Your task to perform on an android device: Search for the best rated 3d printer on Amazon. Image 0: 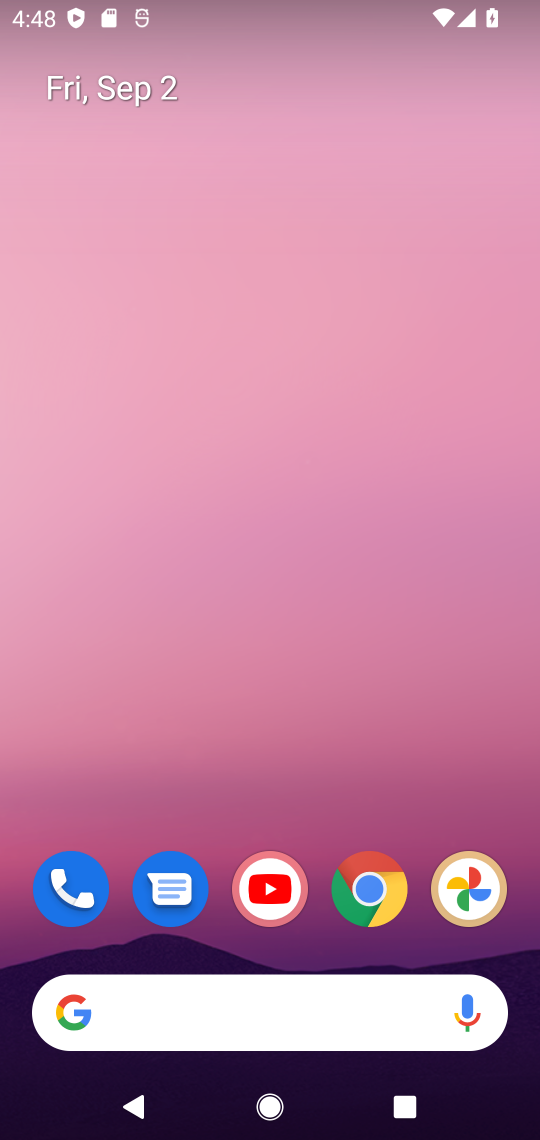
Step 0: click (349, 911)
Your task to perform on an android device: Search for the best rated 3d printer on Amazon. Image 1: 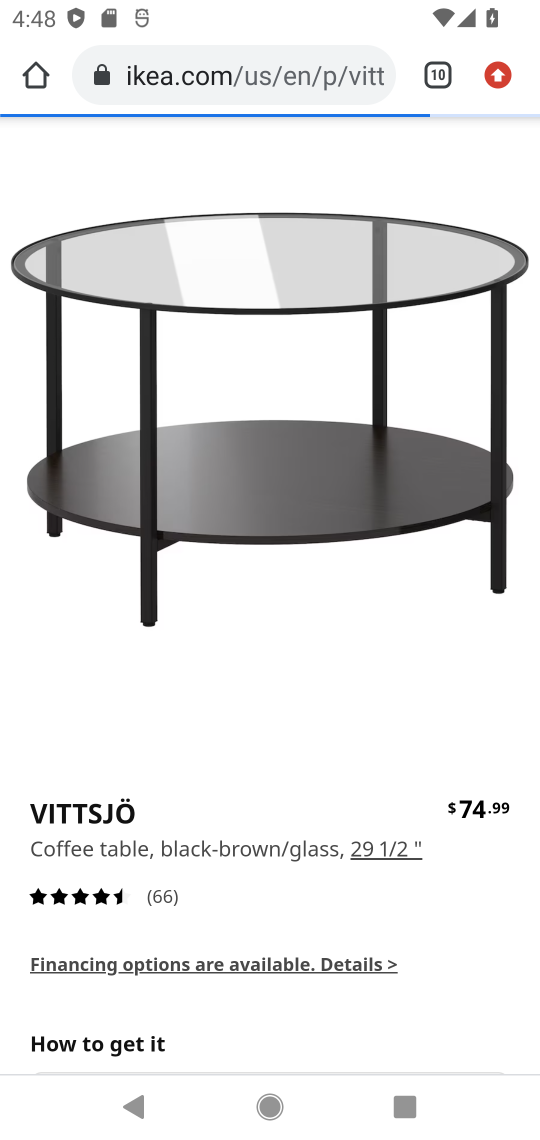
Step 1: click (432, 87)
Your task to perform on an android device: Search for the best rated 3d printer on Amazon. Image 2: 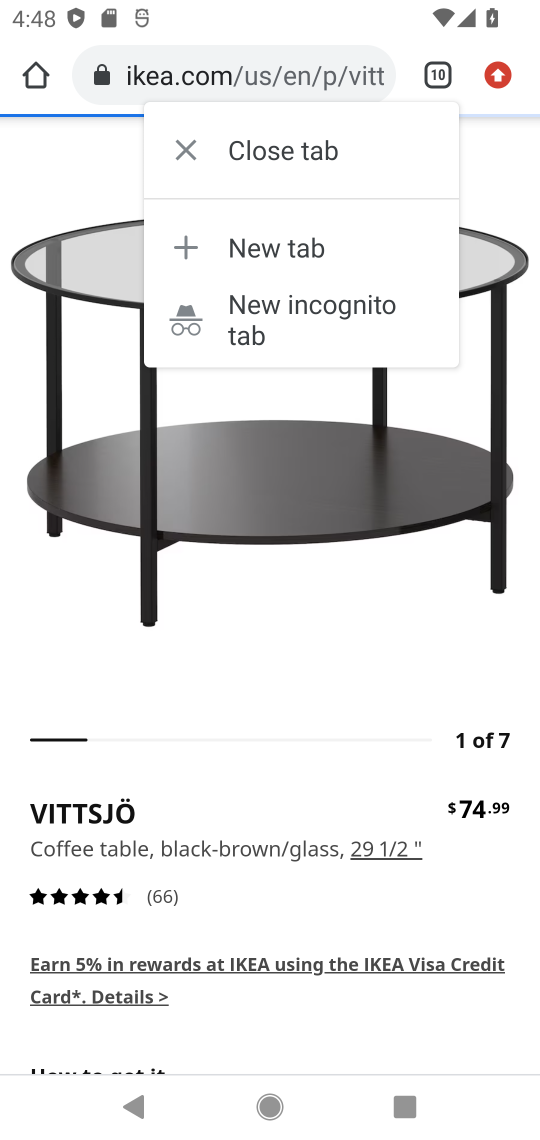
Step 2: click (439, 63)
Your task to perform on an android device: Search for the best rated 3d printer on Amazon. Image 3: 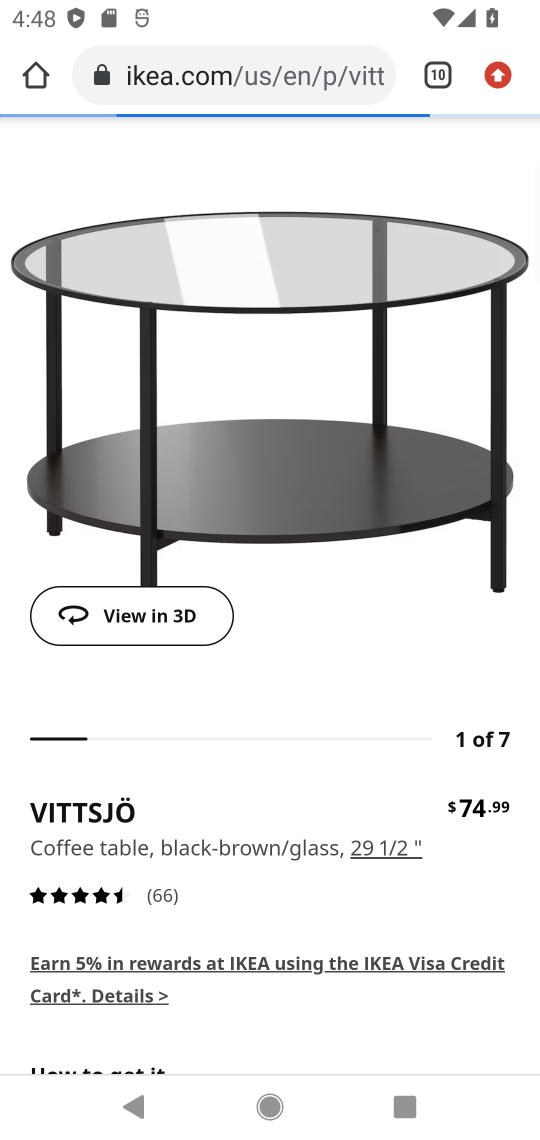
Step 3: click (439, 63)
Your task to perform on an android device: Search for the best rated 3d printer on Amazon. Image 4: 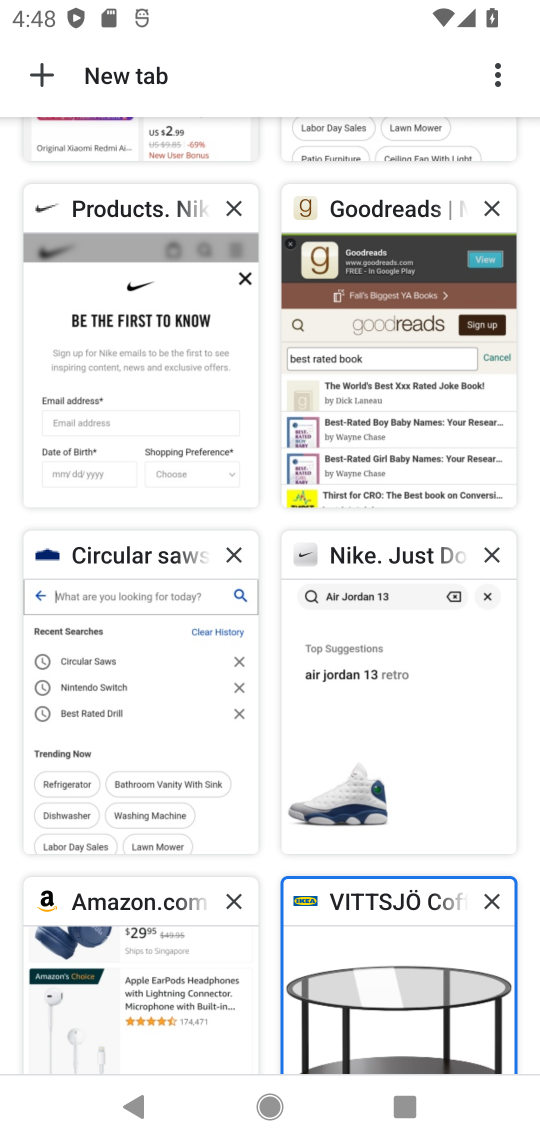
Step 4: click (27, 65)
Your task to perform on an android device: Search for the best rated 3d printer on Amazon. Image 5: 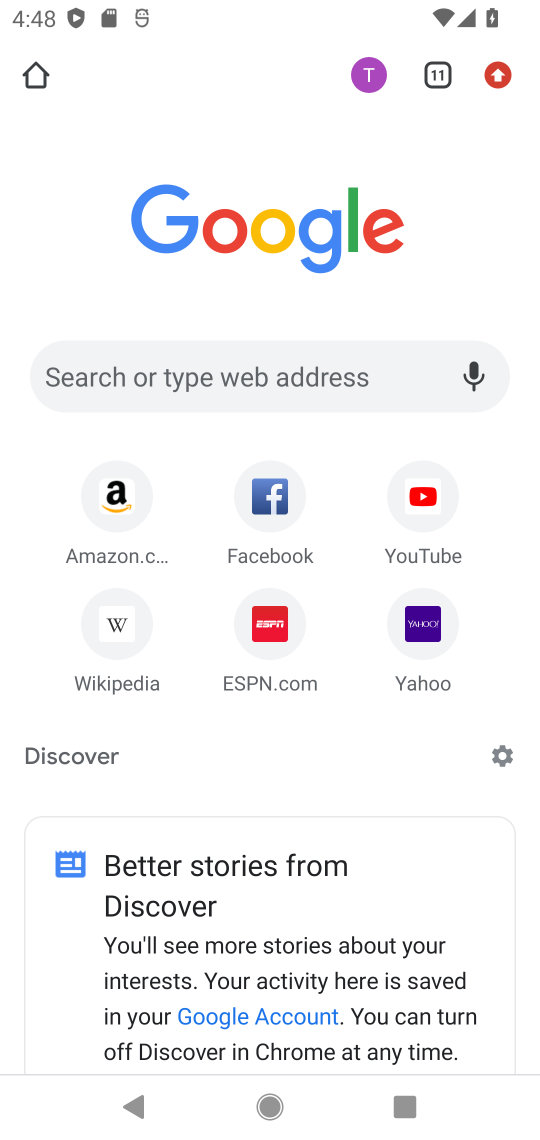
Step 5: click (135, 509)
Your task to perform on an android device: Search for the best rated 3d printer on Amazon. Image 6: 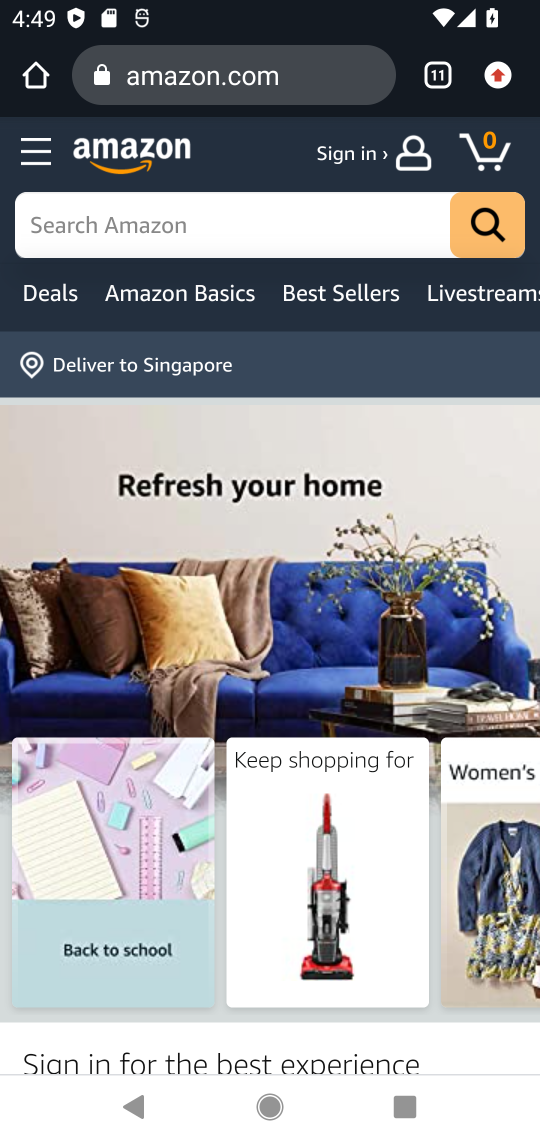
Step 6: click (216, 221)
Your task to perform on an android device: Search for the best rated 3d printer on Amazon. Image 7: 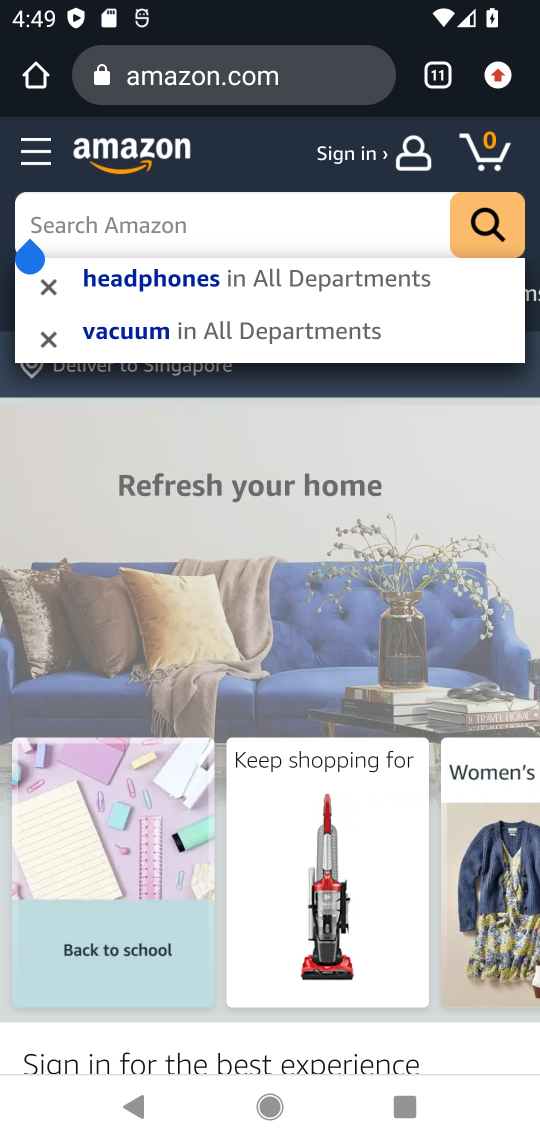
Step 7: type "best rated 3d printer"
Your task to perform on an android device: Search for the best rated 3d printer on Amazon. Image 8: 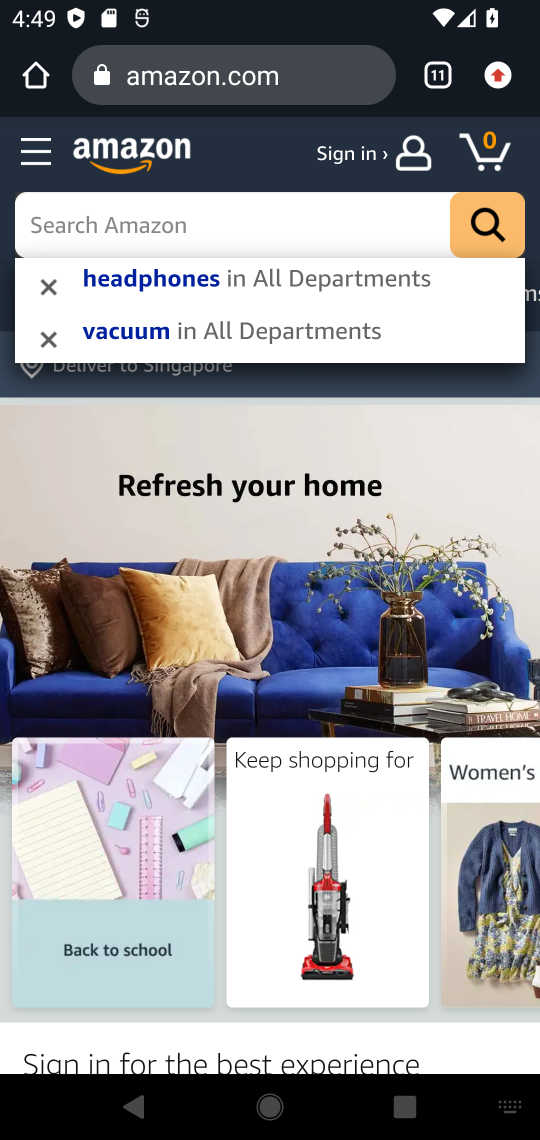
Step 8: type ""
Your task to perform on an android device: Search for the best rated 3d printer on Amazon. Image 9: 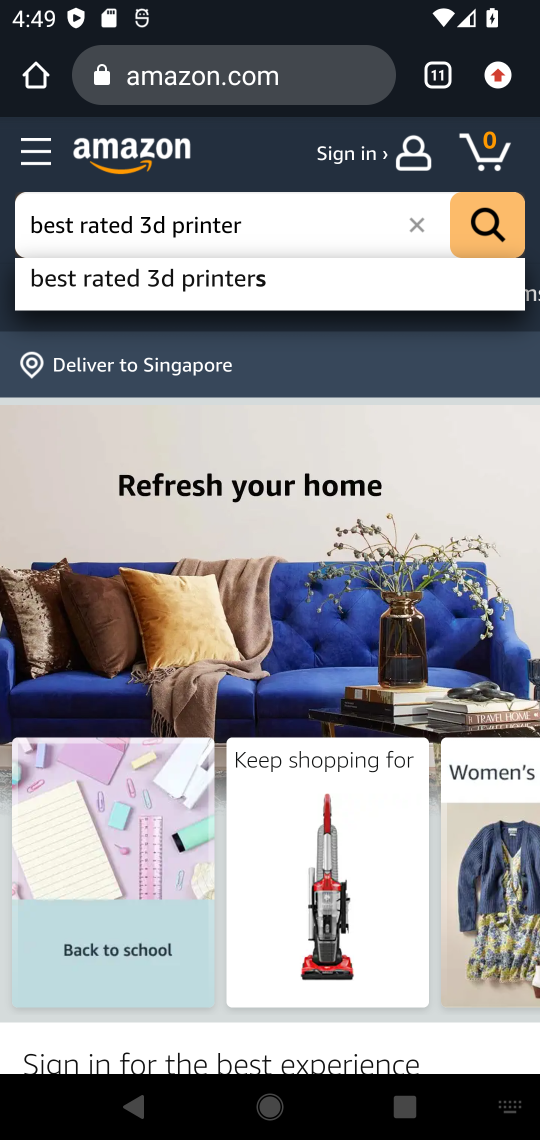
Step 9: click (277, 279)
Your task to perform on an android device: Search for the best rated 3d printer on Amazon. Image 10: 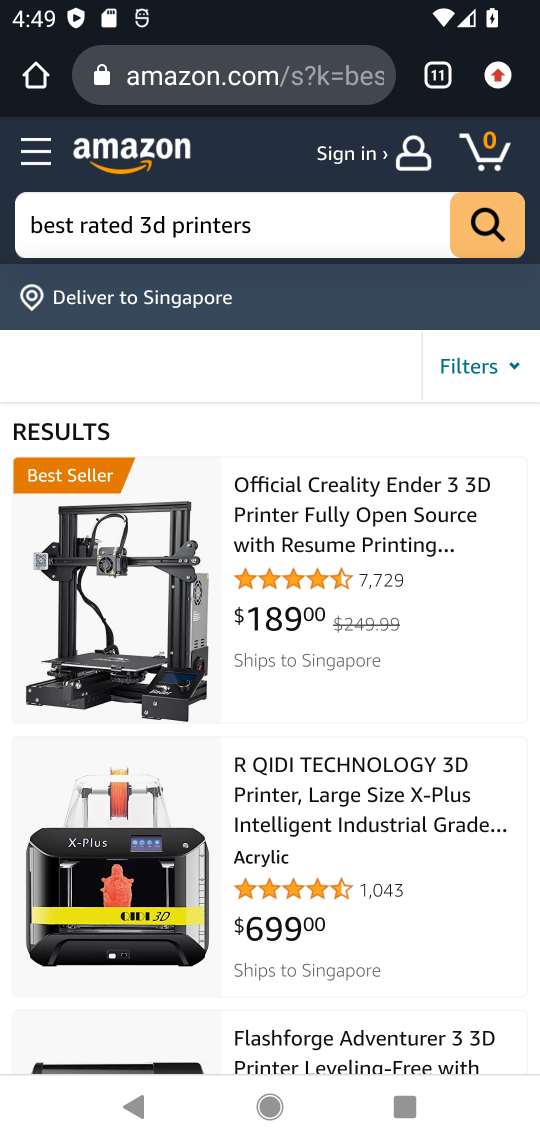
Step 10: click (382, 463)
Your task to perform on an android device: Search for the best rated 3d printer on Amazon. Image 11: 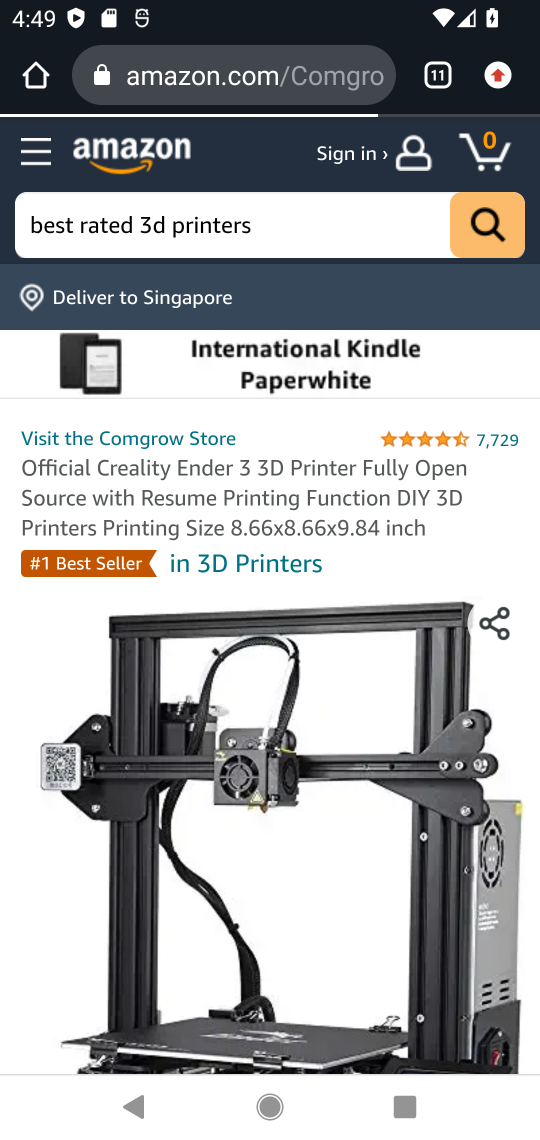
Step 11: task complete